Your task to perform on an android device: Open calendar and show me the second week of next month Image 0: 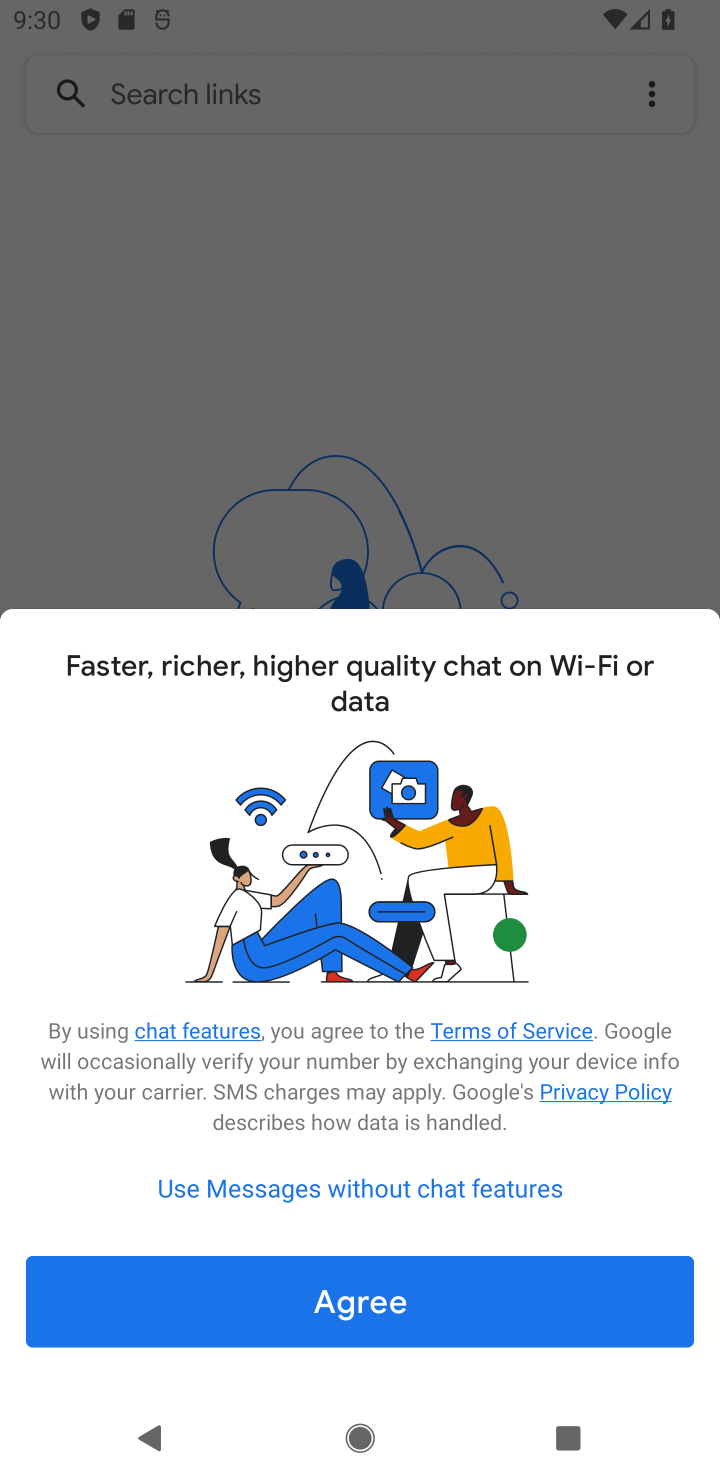
Step 0: press home button
Your task to perform on an android device: Open calendar and show me the second week of next month Image 1: 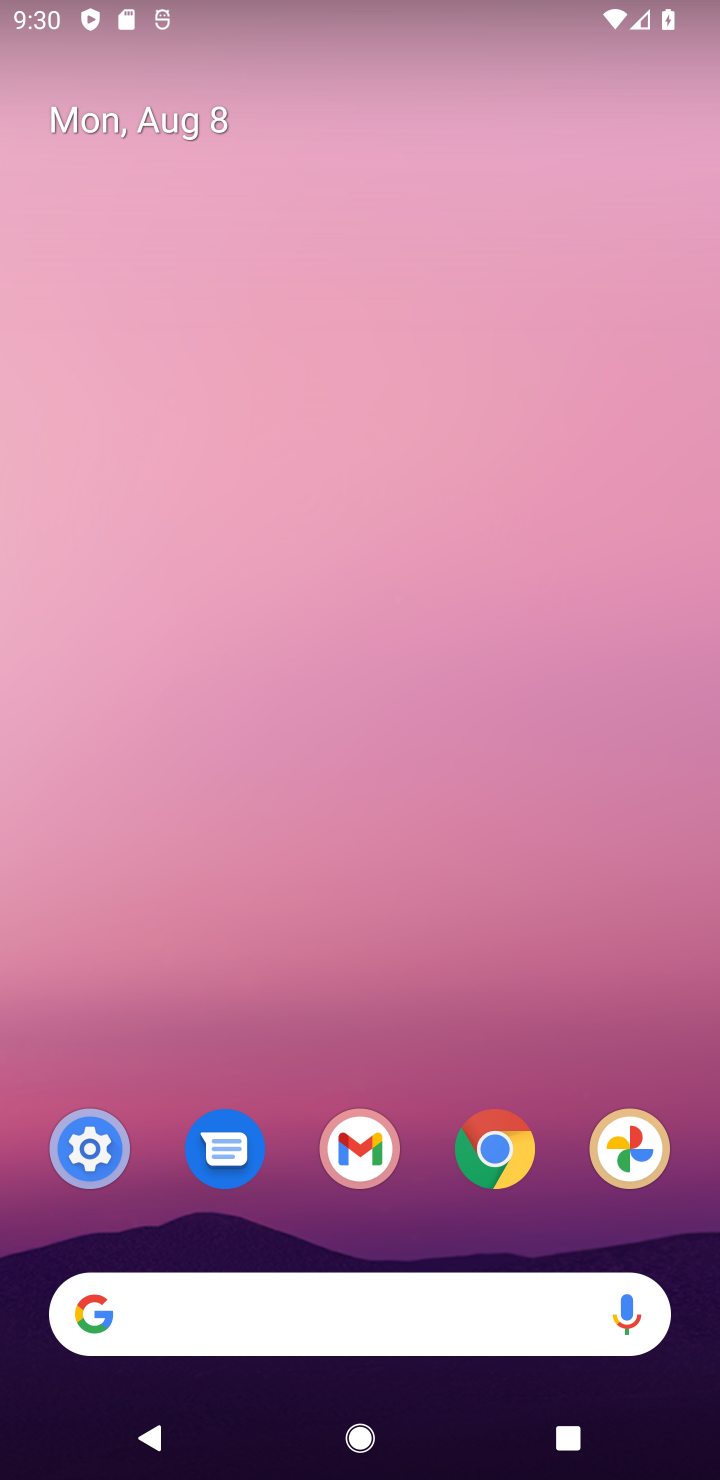
Step 1: drag from (357, 1282) to (245, 191)
Your task to perform on an android device: Open calendar and show me the second week of next month Image 2: 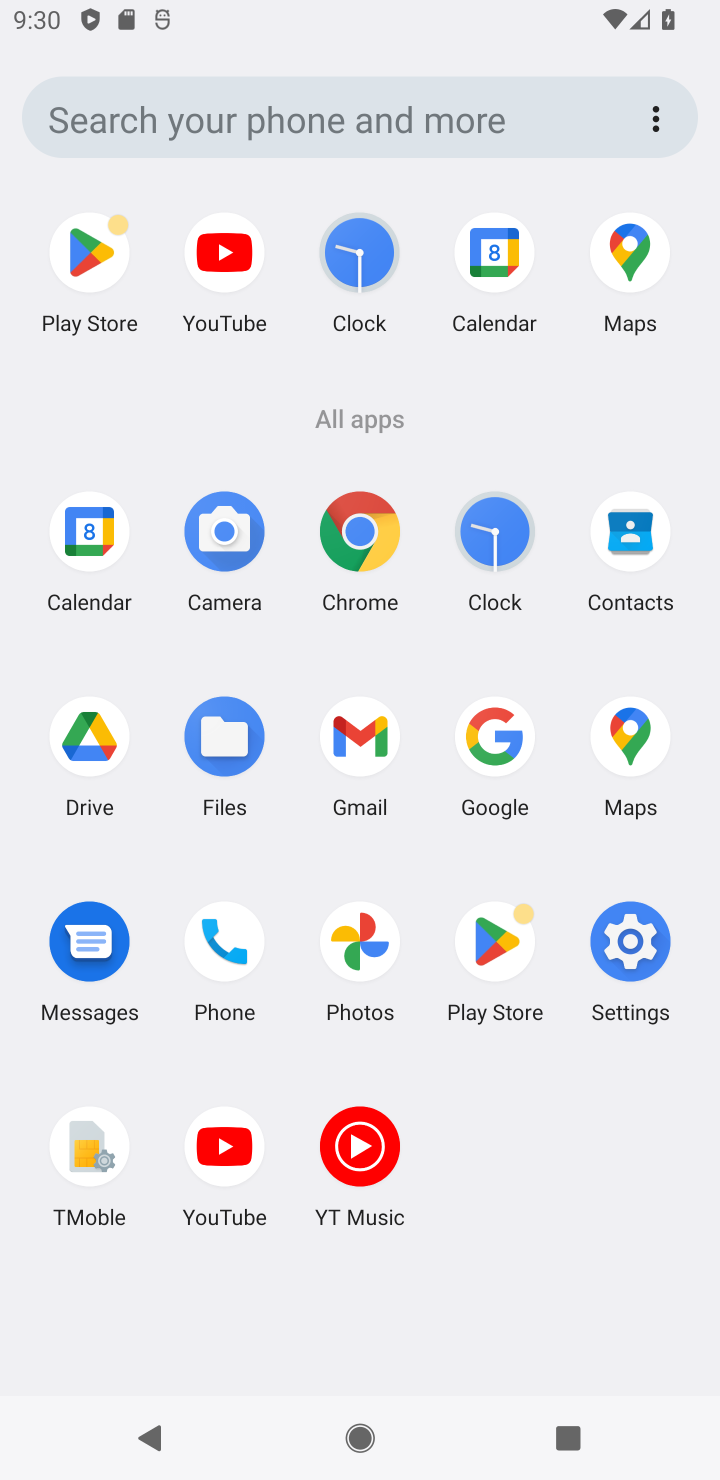
Step 2: click (489, 259)
Your task to perform on an android device: Open calendar and show me the second week of next month Image 3: 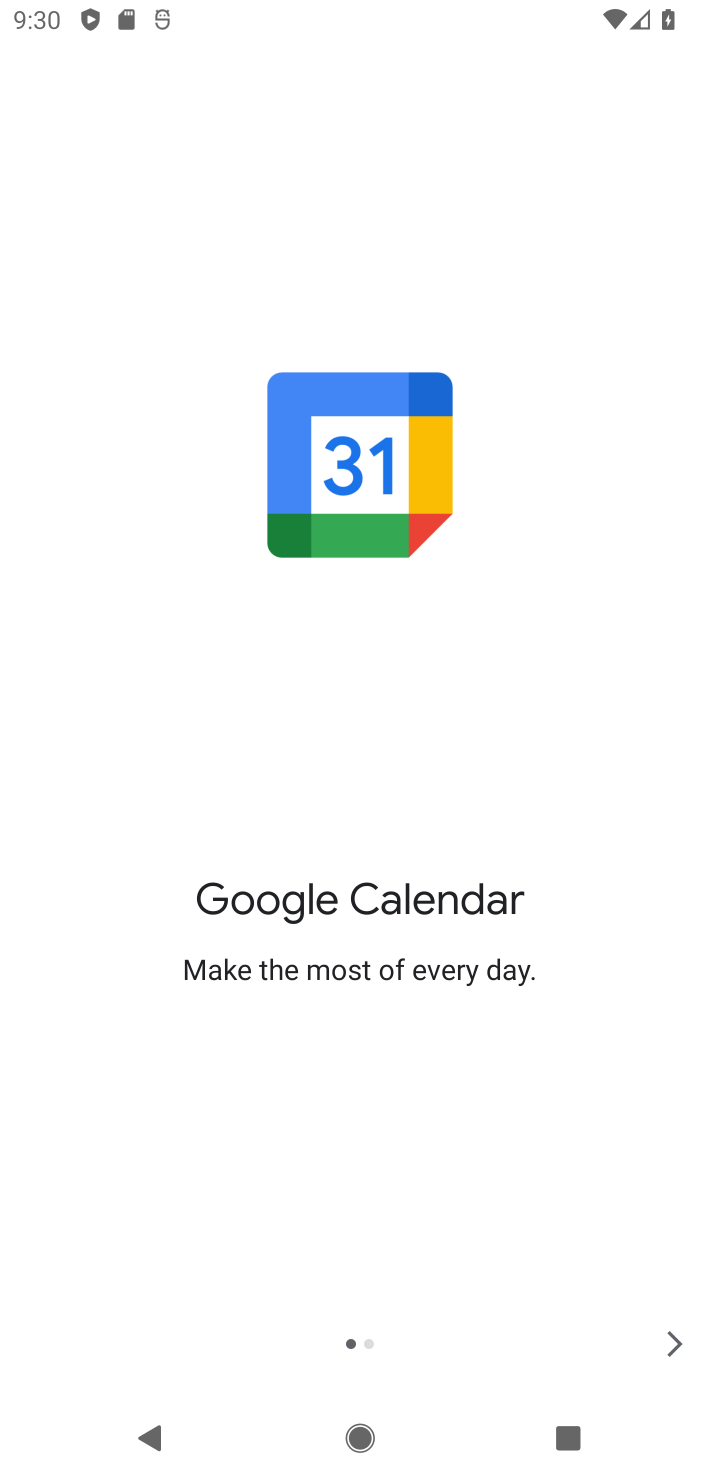
Step 3: click (671, 1343)
Your task to perform on an android device: Open calendar and show me the second week of next month Image 4: 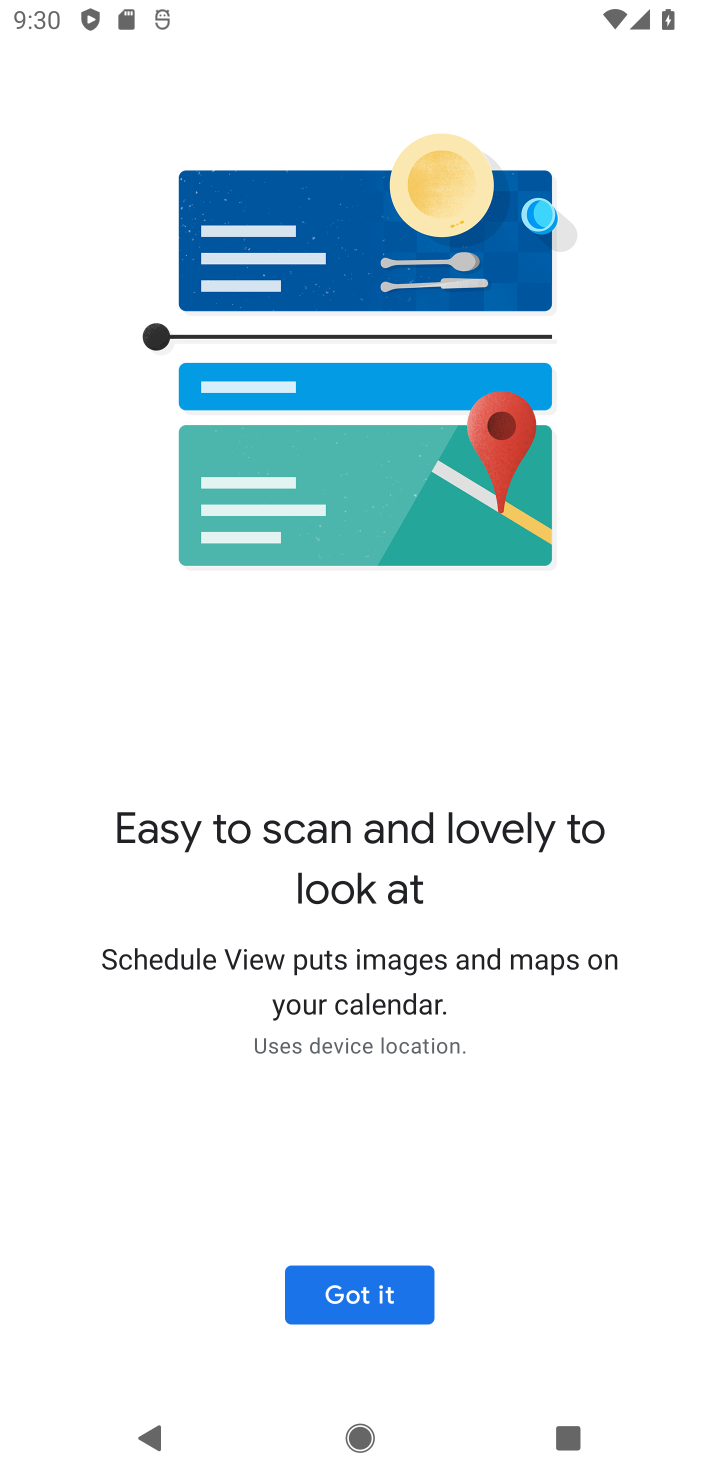
Step 4: click (341, 1299)
Your task to perform on an android device: Open calendar and show me the second week of next month Image 5: 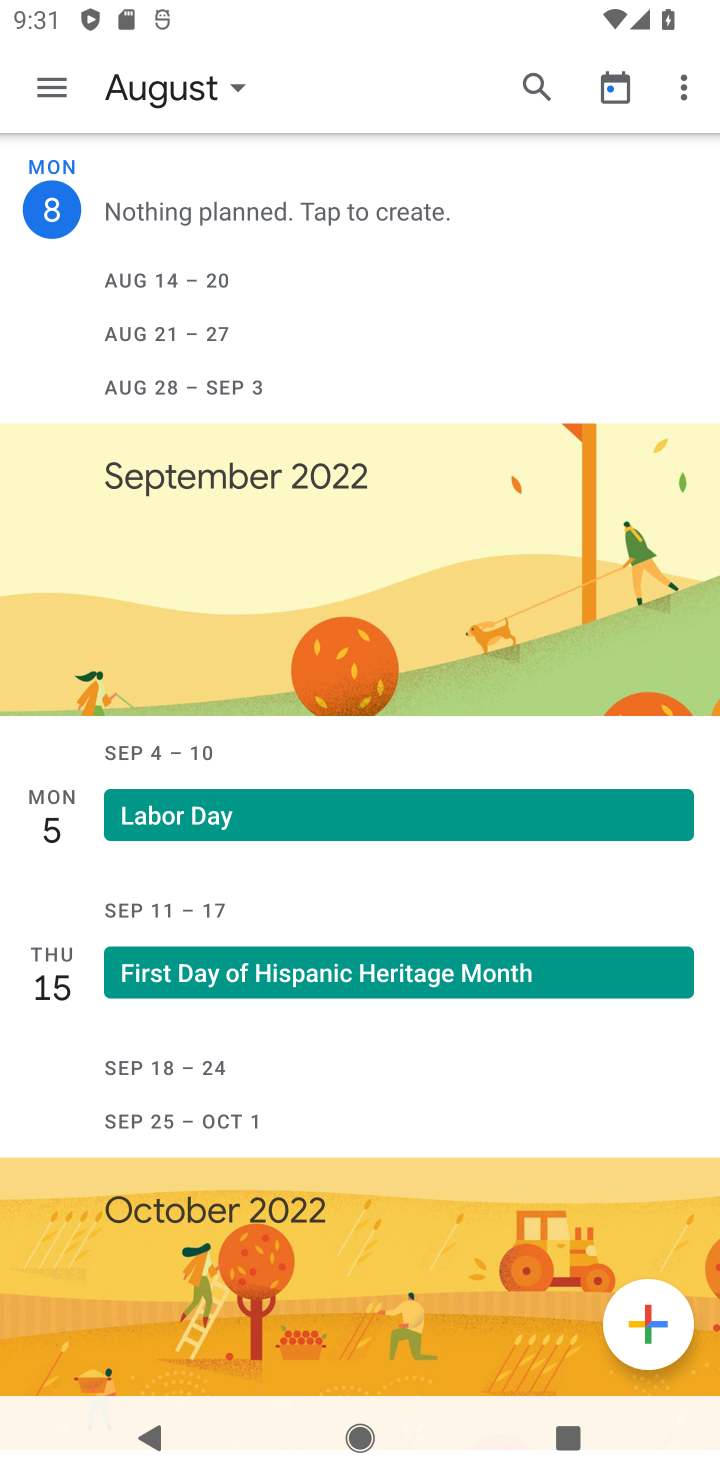
Step 5: click (202, 85)
Your task to perform on an android device: Open calendar and show me the second week of next month Image 6: 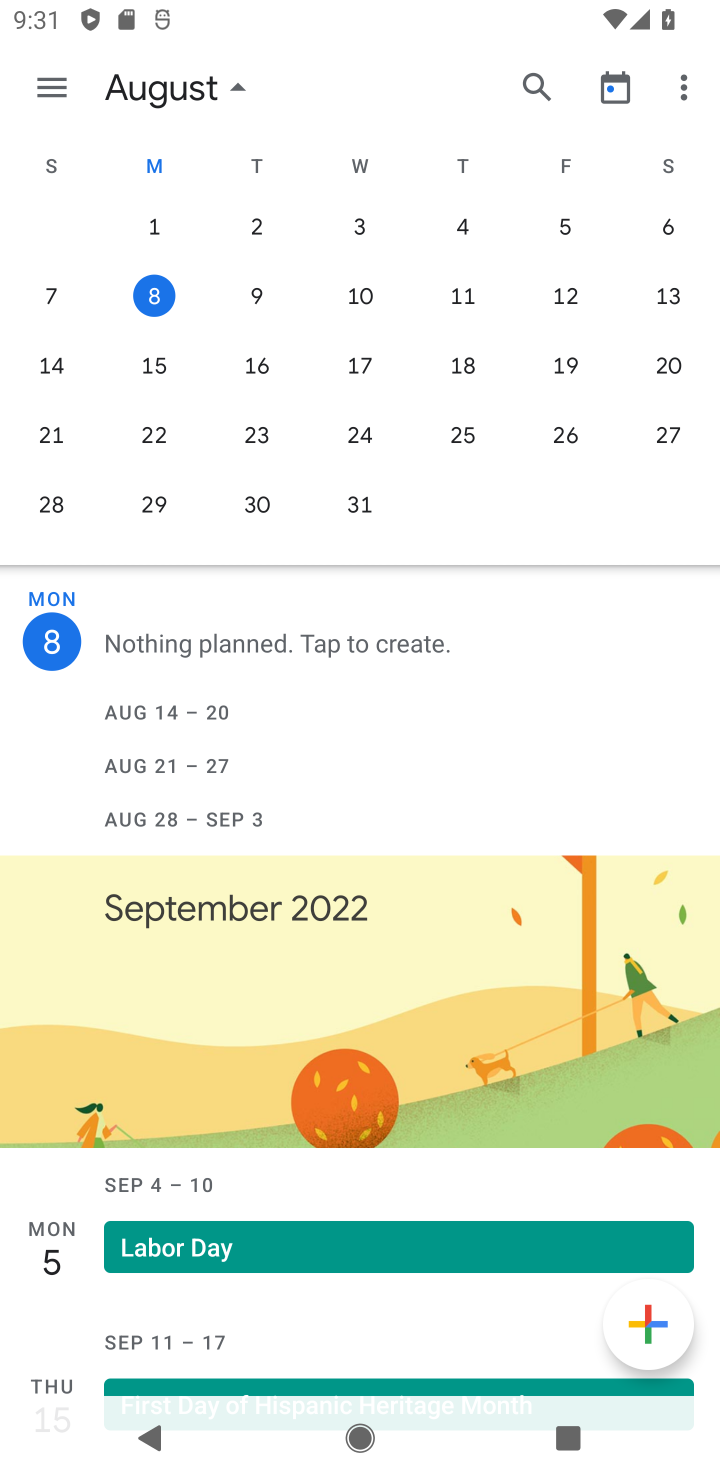
Step 6: drag from (663, 367) to (33, 498)
Your task to perform on an android device: Open calendar and show me the second week of next month Image 7: 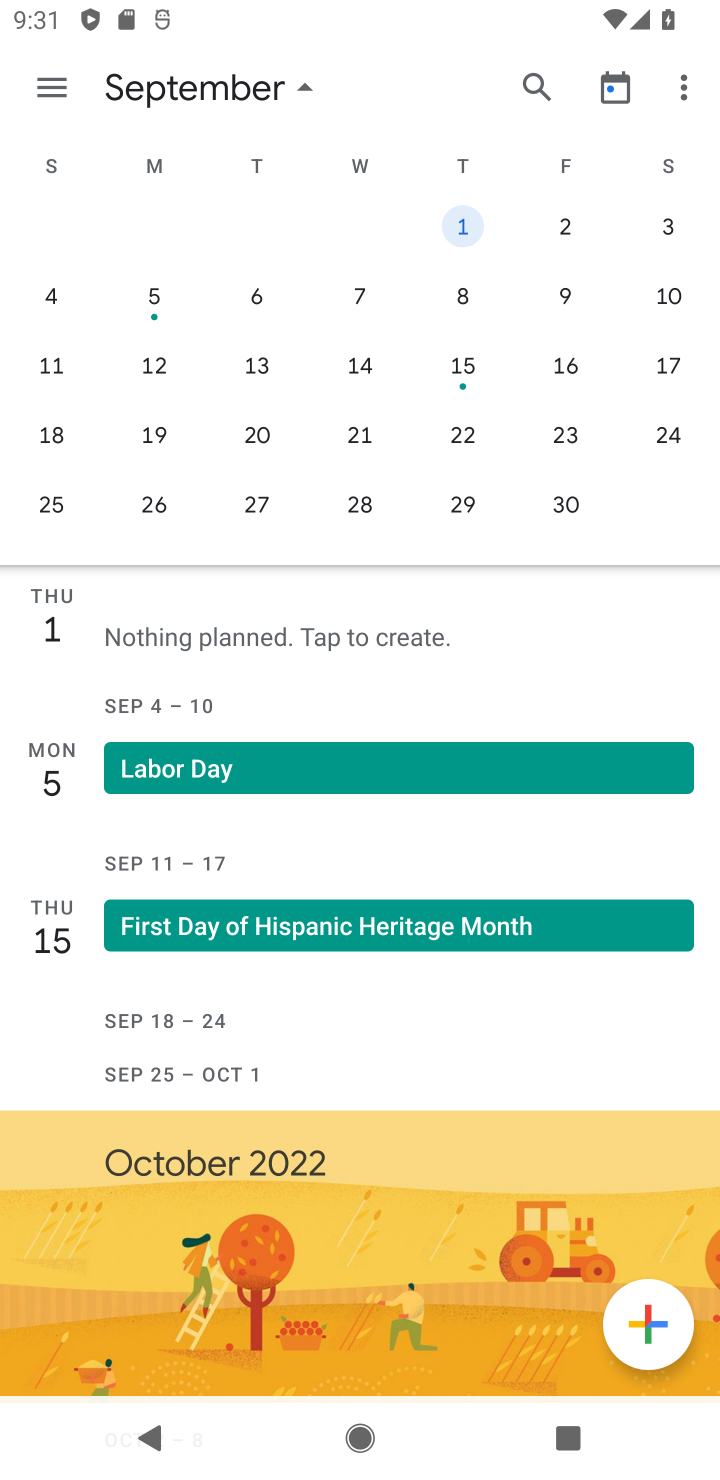
Step 7: click (40, 303)
Your task to perform on an android device: Open calendar and show me the second week of next month Image 8: 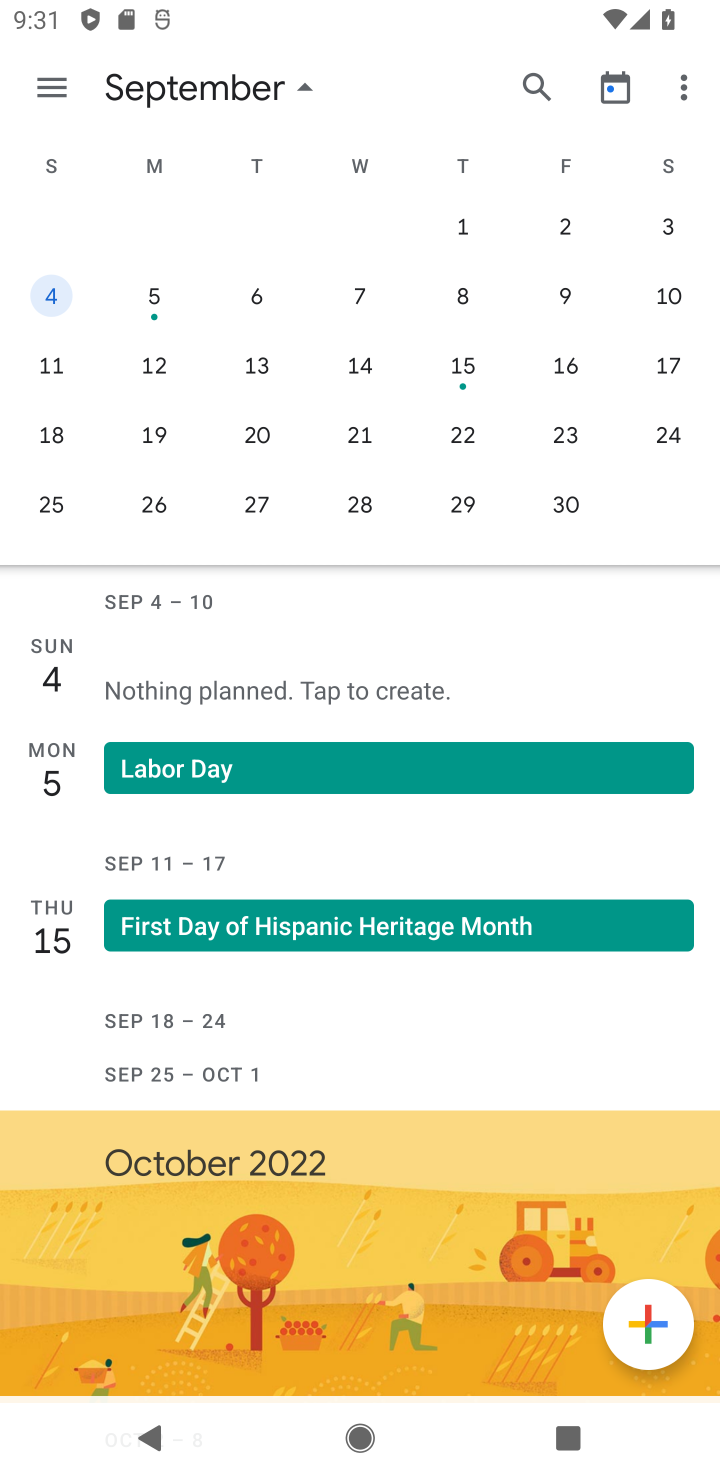
Step 8: task complete